Your task to perform on an android device: allow cookies in the chrome app Image 0: 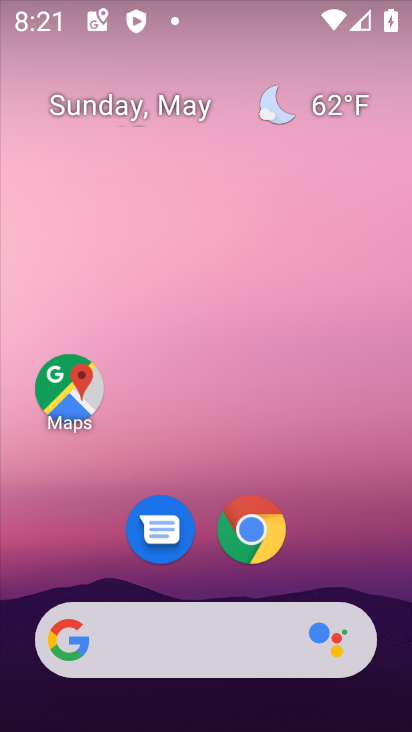
Step 0: drag from (354, 542) to (383, 155)
Your task to perform on an android device: allow cookies in the chrome app Image 1: 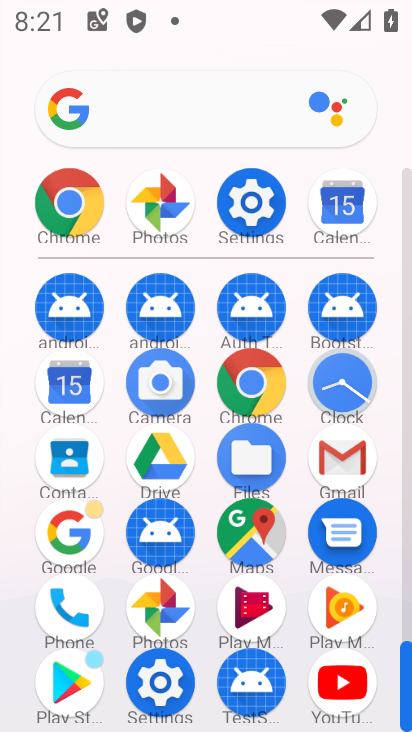
Step 1: click (231, 386)
Your task to perform on an android device: allow cookies in the chrome app Image 2: 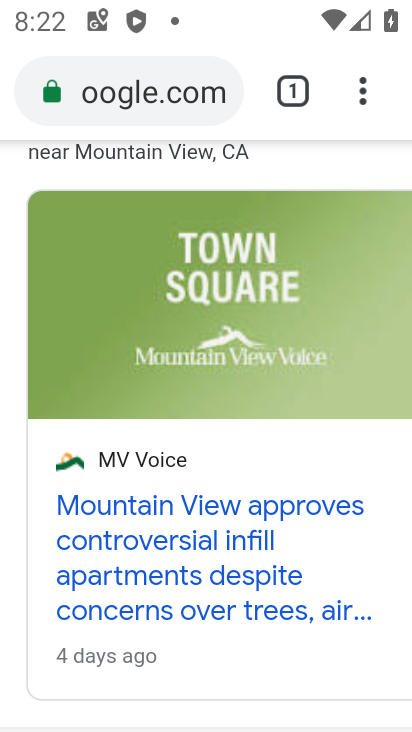
Step 2: drag from (365, 109) to (136, 547)
Your task to perform on an android device: allow cookies in the chrome app Image 3: 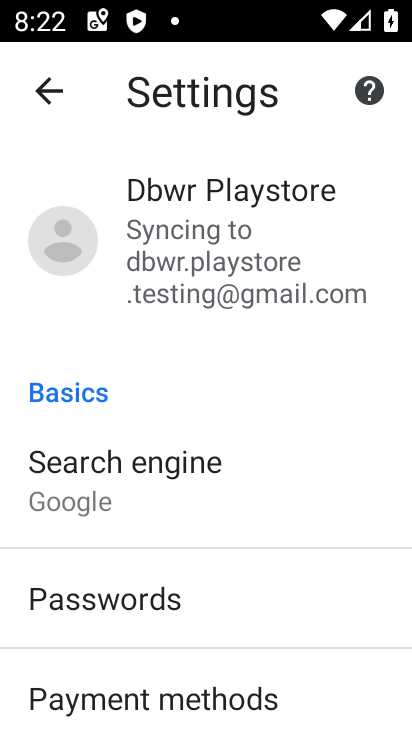
Step 3: drag from (191, 654) to (249, 343)
Your task to perform on an android device: allow cookies in the chrome app Image 4: 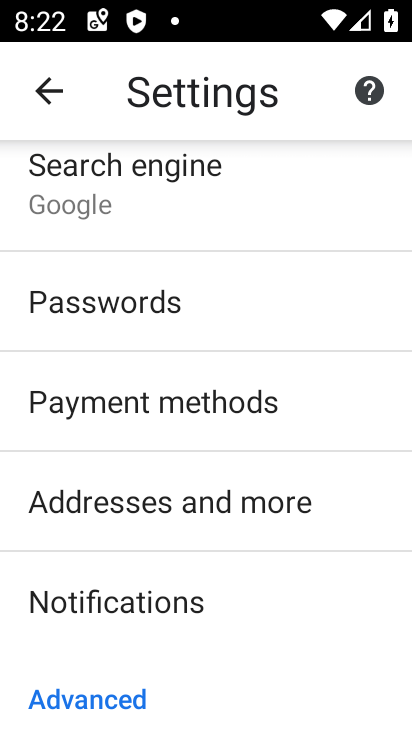
Step 4: drag from (271, 658) to (326, 358)
Your task to perform on an android device: allow cookies in the chrome app Image 5: 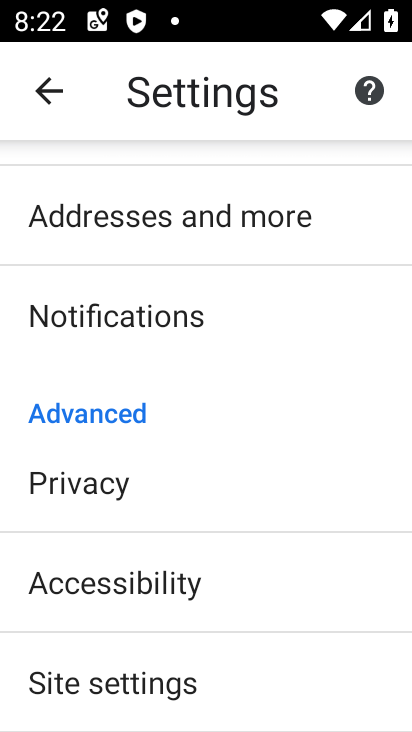
Step 5: drag from (248, 597) to (266, 411)
Your task to perform on an android device: allow cookies in the chrome app Image 6: 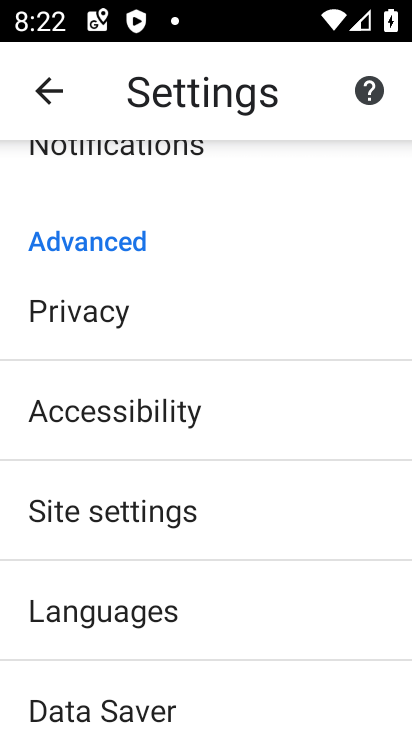
Step 6: drag from (196, 688) to (213, 337)
Your task to perform on an android device: allow cookies in the chrome app Image 7: 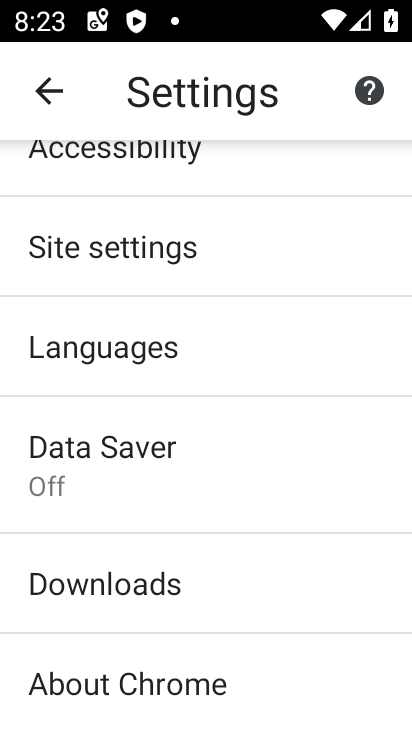
Step 7: click (134, 260)
Your task to perform on an android device: allow cookies in the chrome app Image 8: 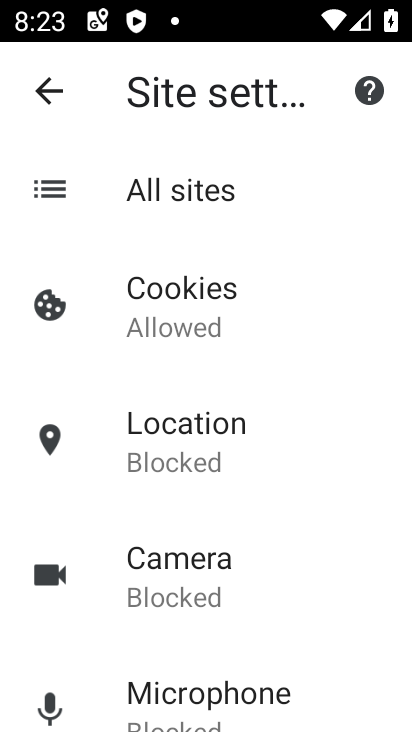
Step 8: click (177, 199)
Your task to perform on an android device: allow cookies in the chrome app Image 9: 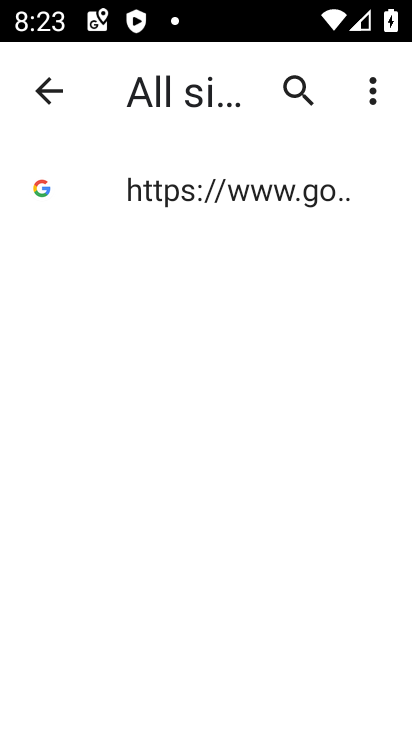
Step 9: click (178, 198)
Your task to perform on an android device: allow cookies in the chrome app Image 10: 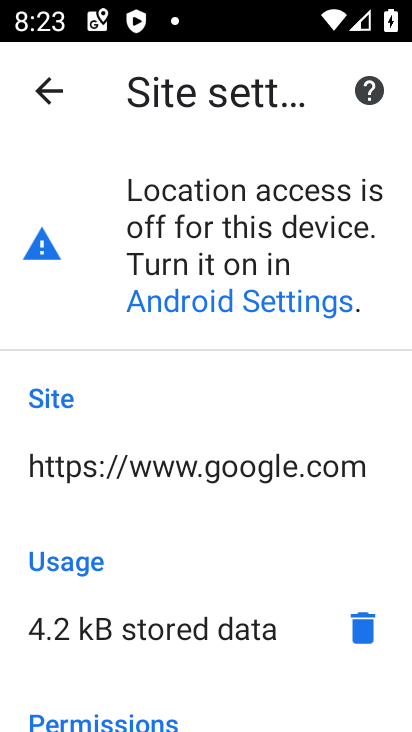
Step 10: task complete